Your task to perform on an android device: What's US dollar exchange rate against the Chinese Yuan? Image 0: 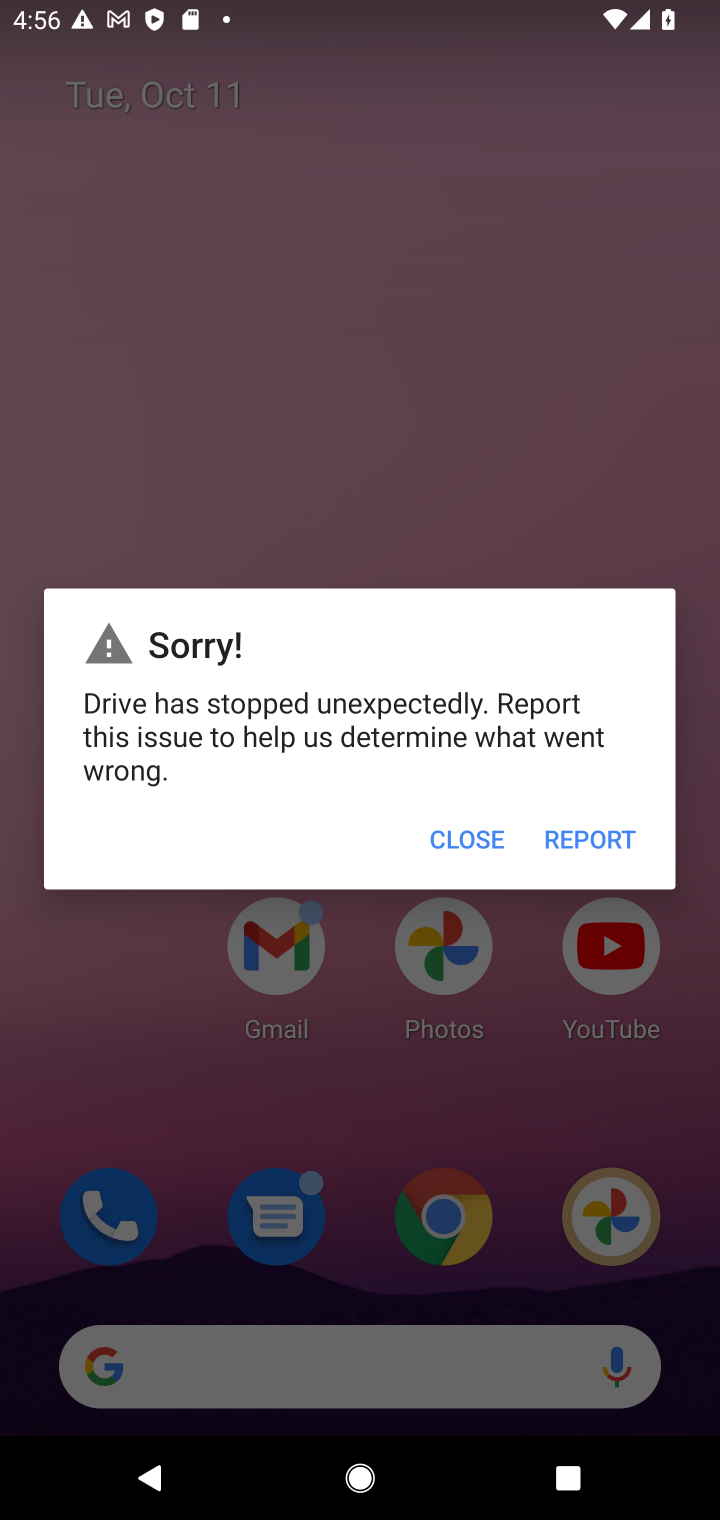
Step 0: press home button
Your task to perform on an android device: What's US dollar exchange rate against the Chinese Yuan? Image 1: 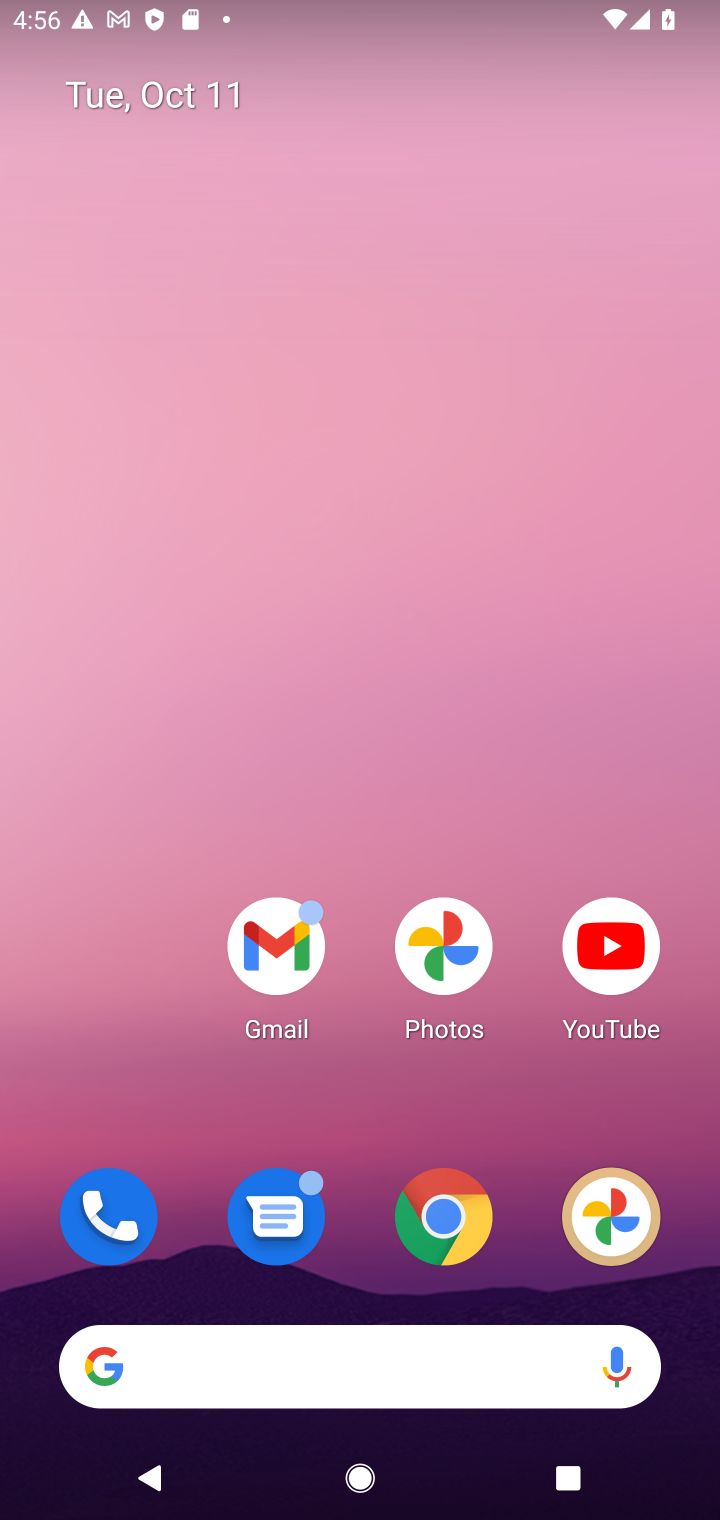
Step 1: click (441, 1222)
Your task to perform on an android device: What's US dollar exchange rate against the Chinese Yuan? Image 2: 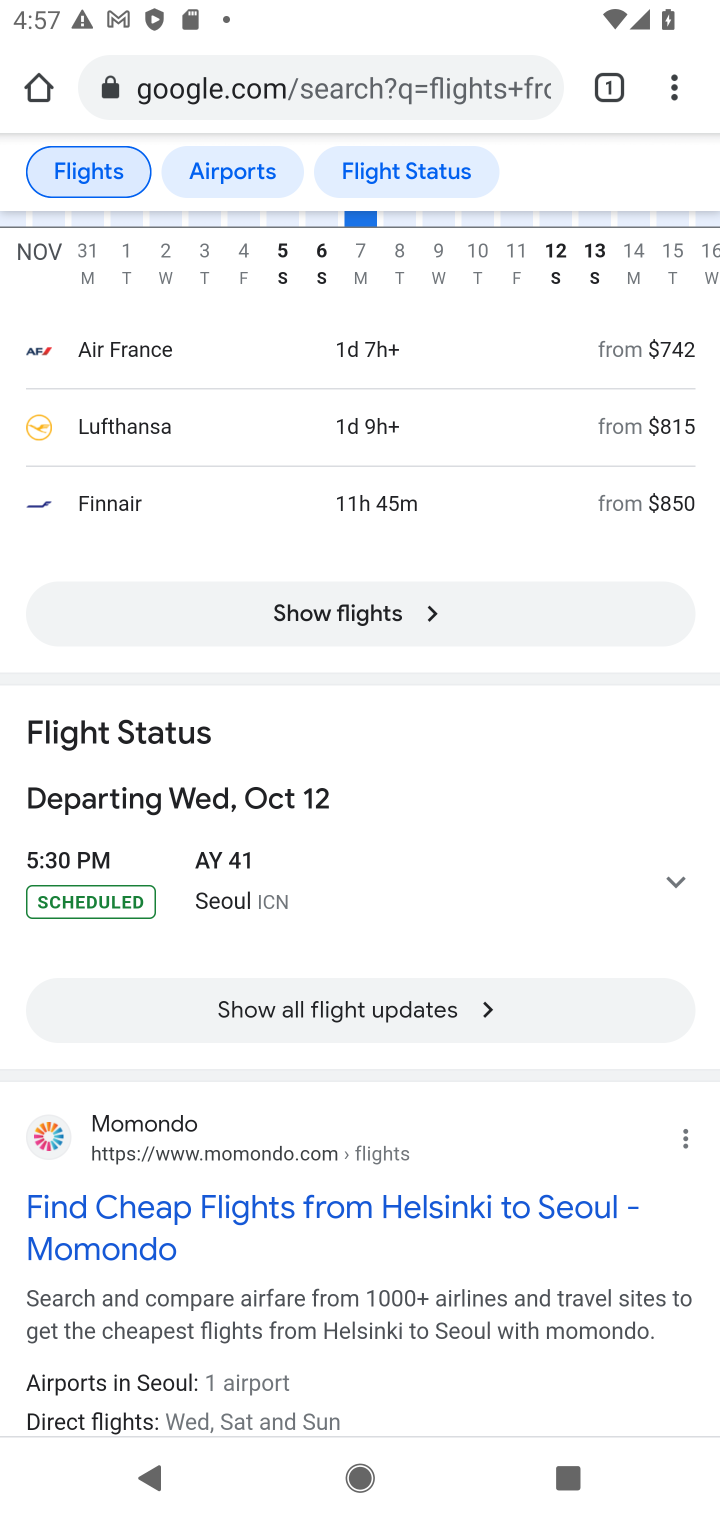
Step 2: click (334, 81)
Your task to perform on an android device: What's US dollar exchange rate against the Chinese Yuan? Image 3: 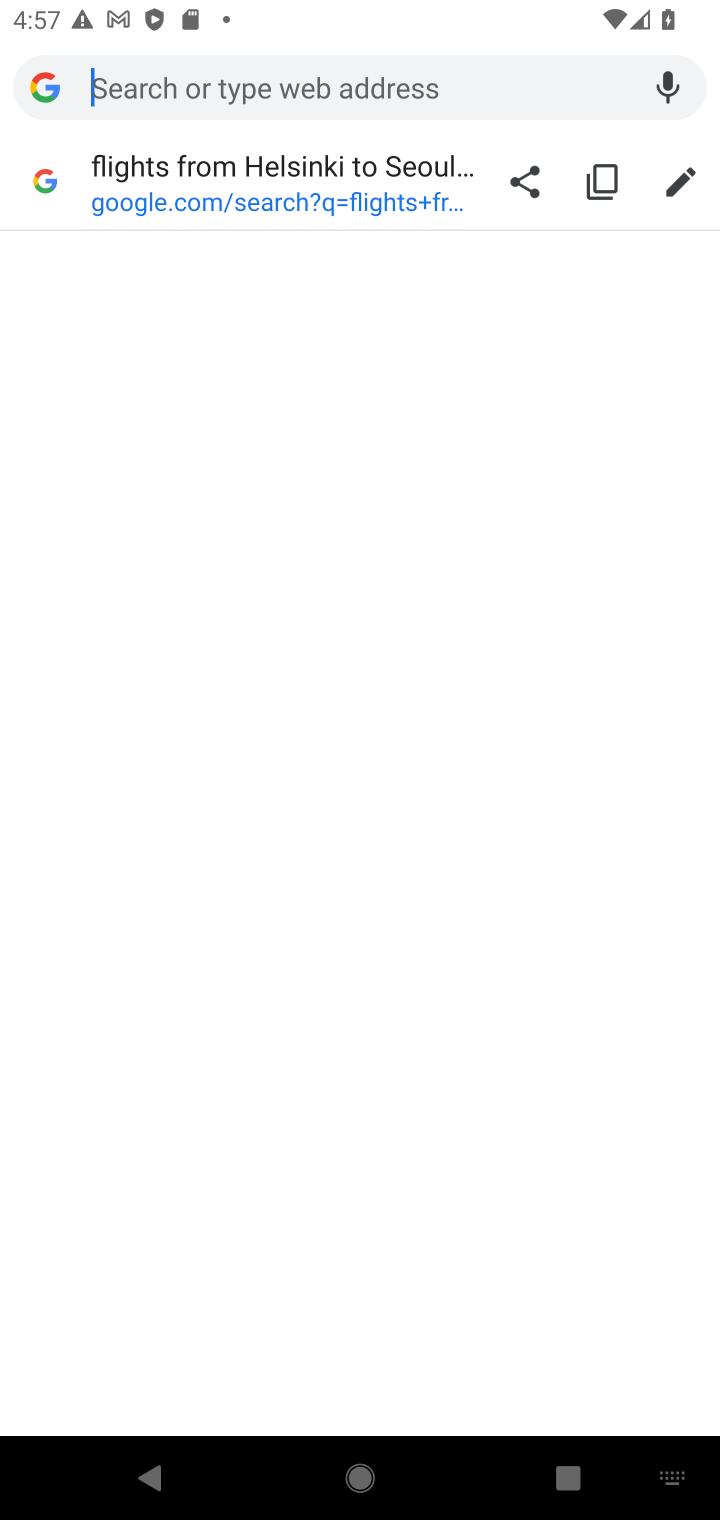
Step 3: type "What's US dollar exchange rate against the Chinese Yuan?"
Your task to perform on an android device: What's US dollar exchange rate against the Chinese Yuan? Image 4: 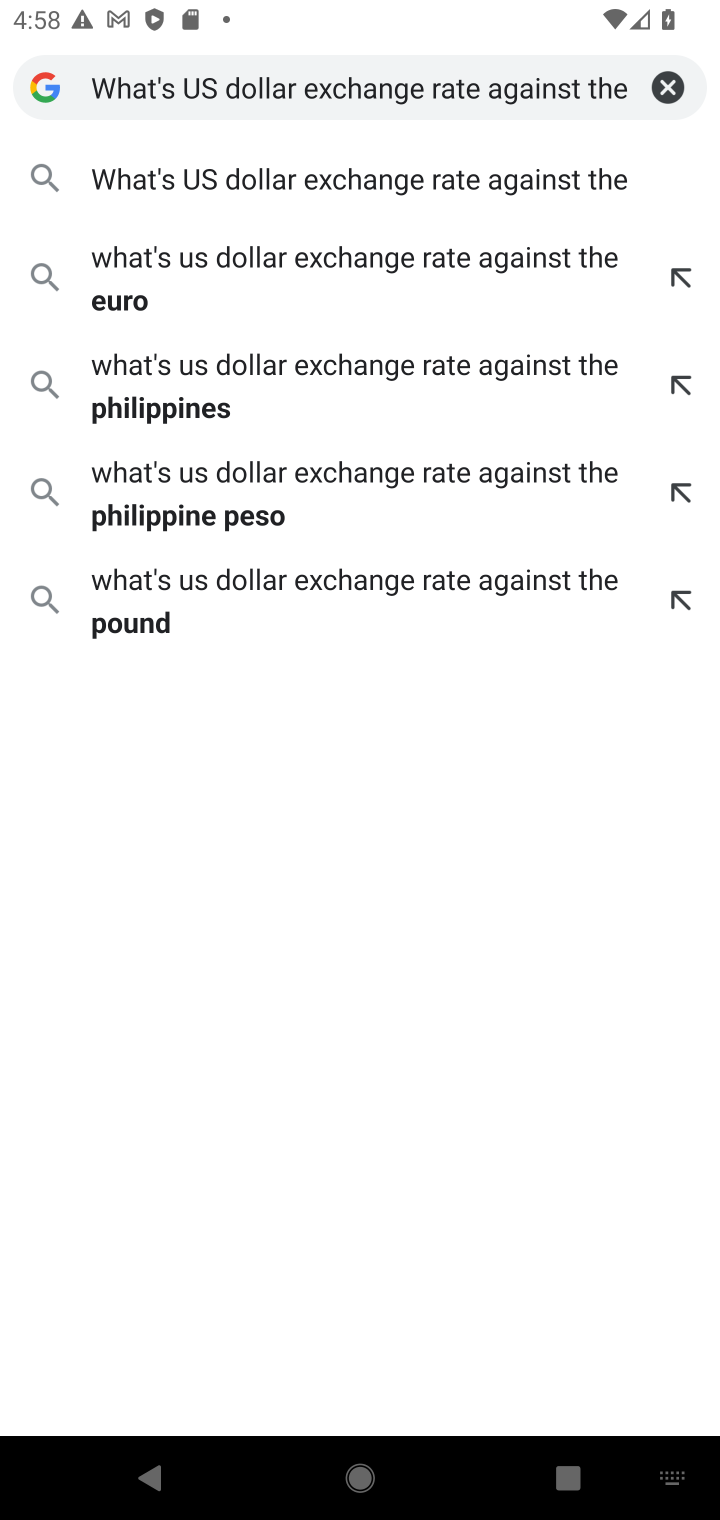
Step 4: click (226, 182)
Your task to perform on an android device: What's US dollar exchange rate against the Chinese Yuan? Image 5: 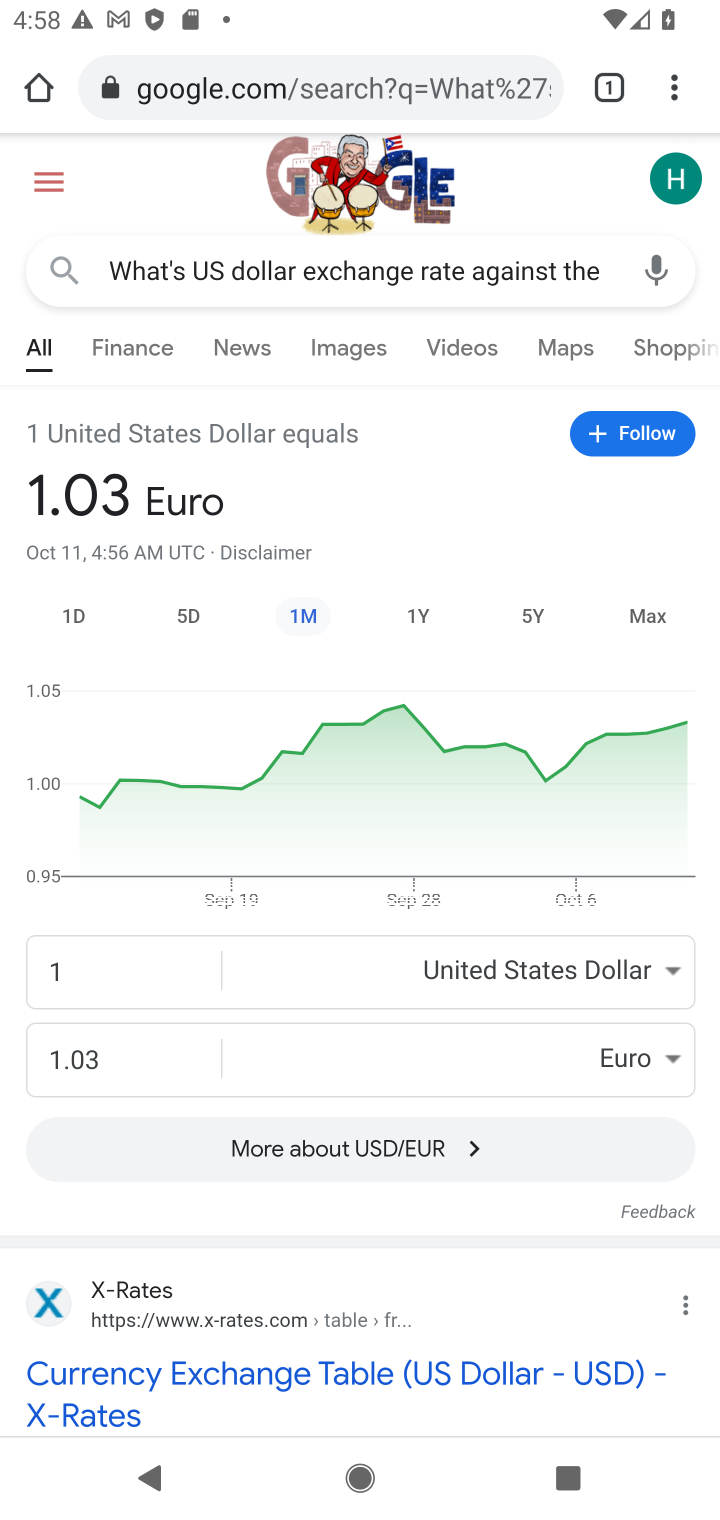
Step 5: click (615, 1054)
Your task to perform on an android device: What's US dollar exchange rate against the Chinese Yuan? Image 6: 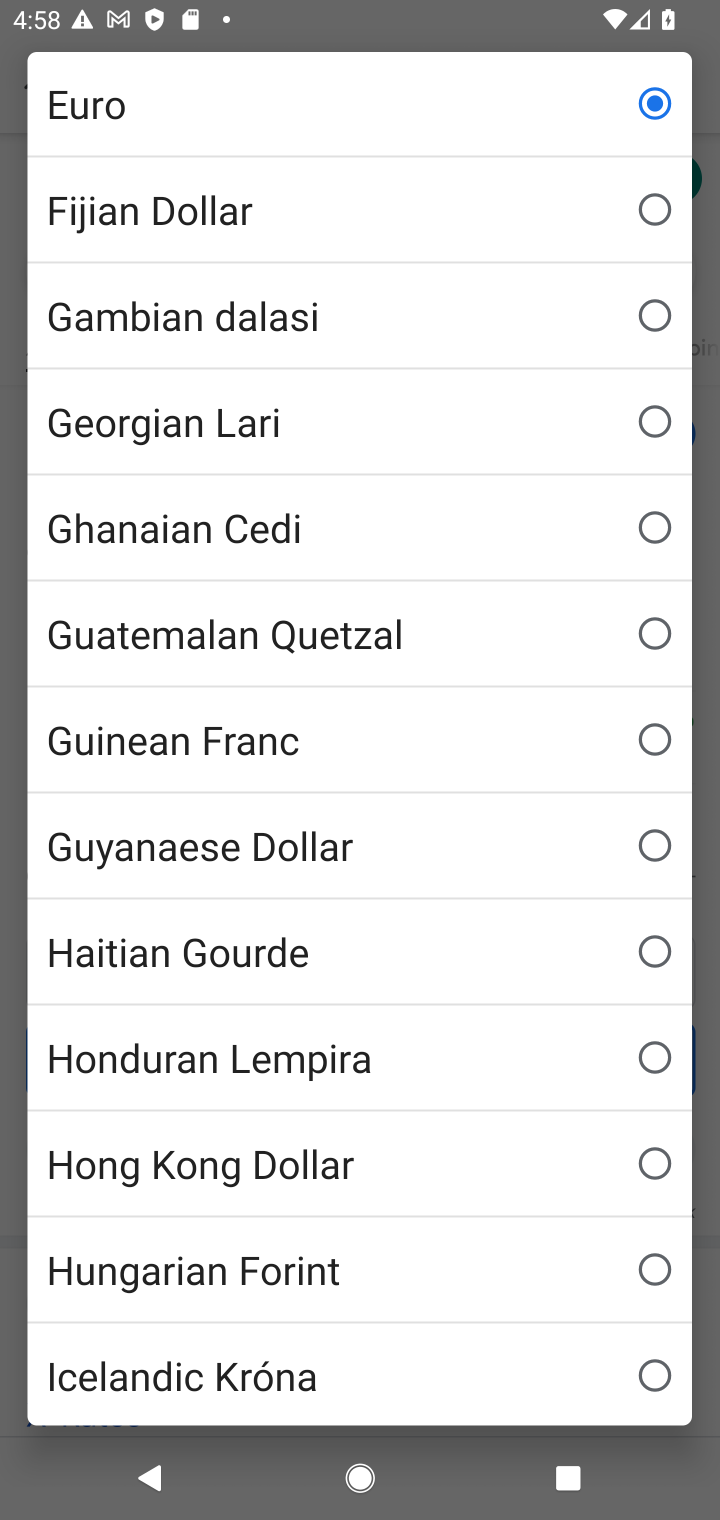
Step 6: drag from (381, 470) to (360, 799)
Your task to perform on an android device: What's US dollar exchange rate against the Chinese Yuan? Image 7: 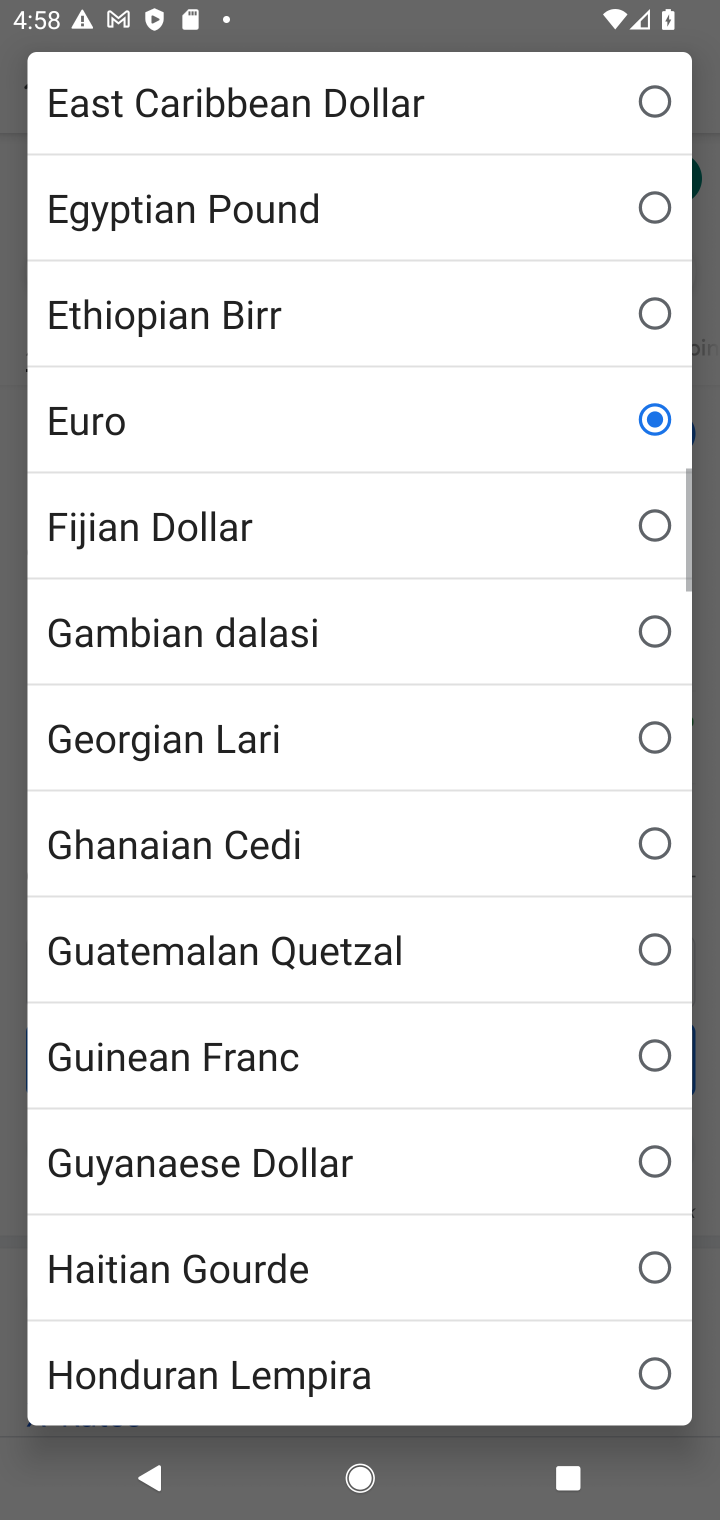
Step 7: drag from (284, 221) to (319, 652)
Your task to perform on an android device: What's US dollar exchange rate against the Chinese Yuan? Image 8: 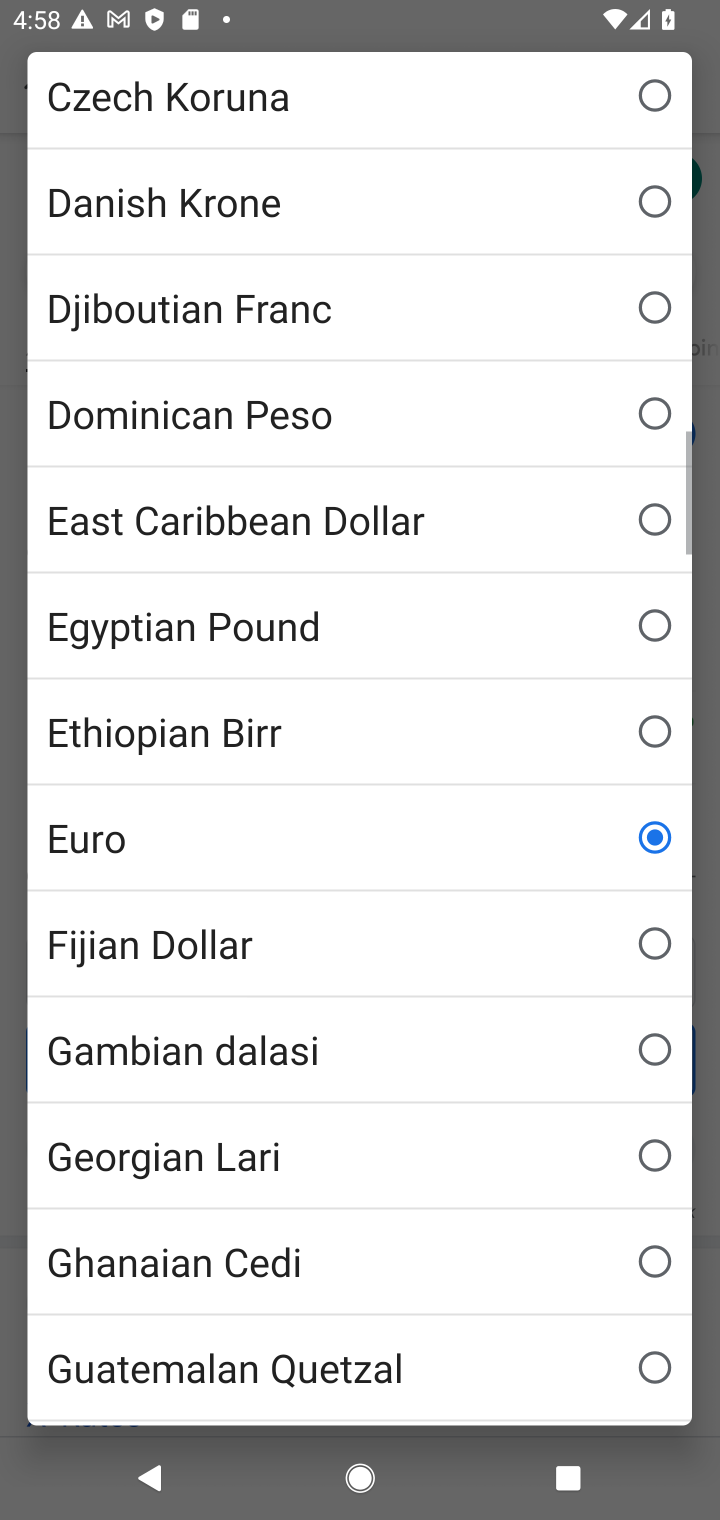
Step 8: drag from (225, 336) to (251, 597)
Your task to perform on an android device: What's US dollar exchange rate against the Chinese Yuan? Image 9: 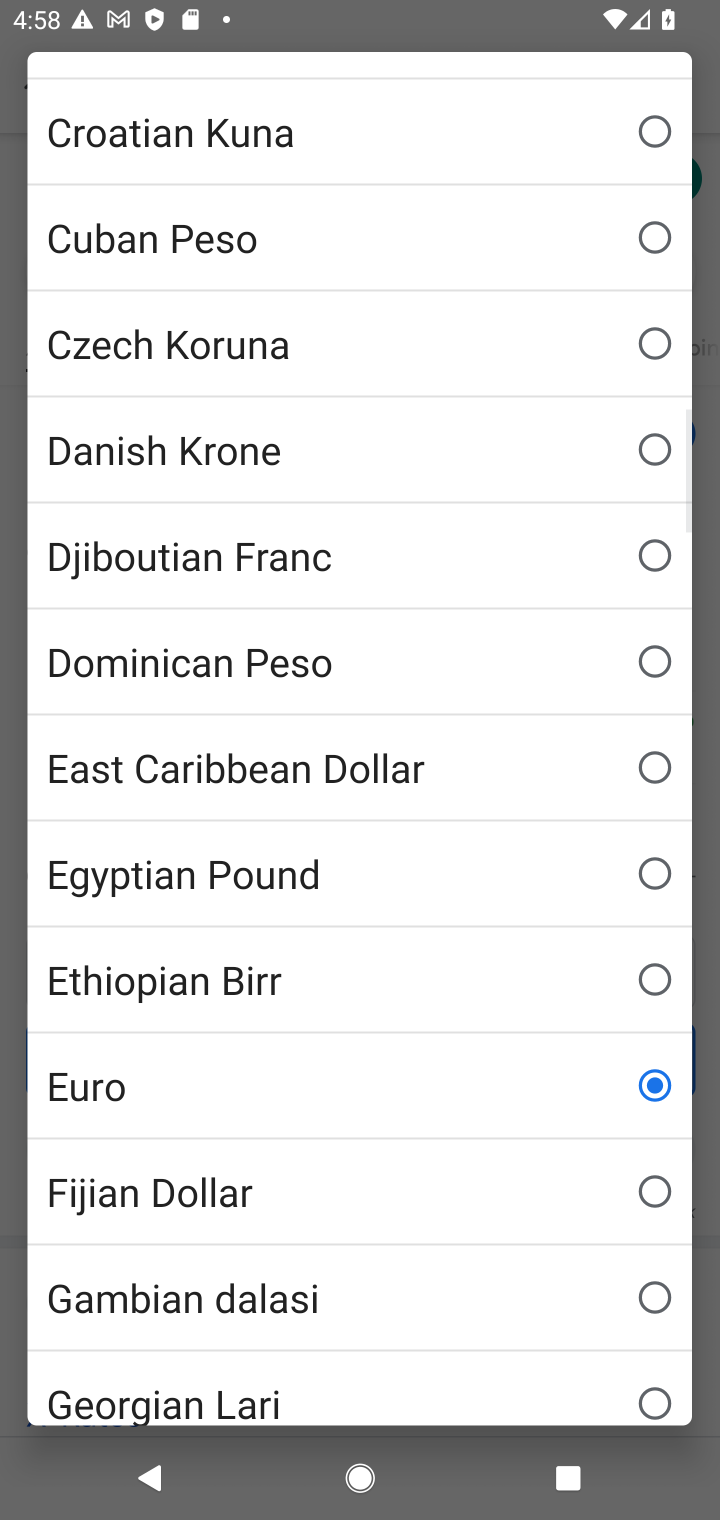
Step 9: drag from (270, 186) to (349, 572)
Your task to perform on an android device: What's US dollar exchange rate against the Chinese Yuan? Image 10: 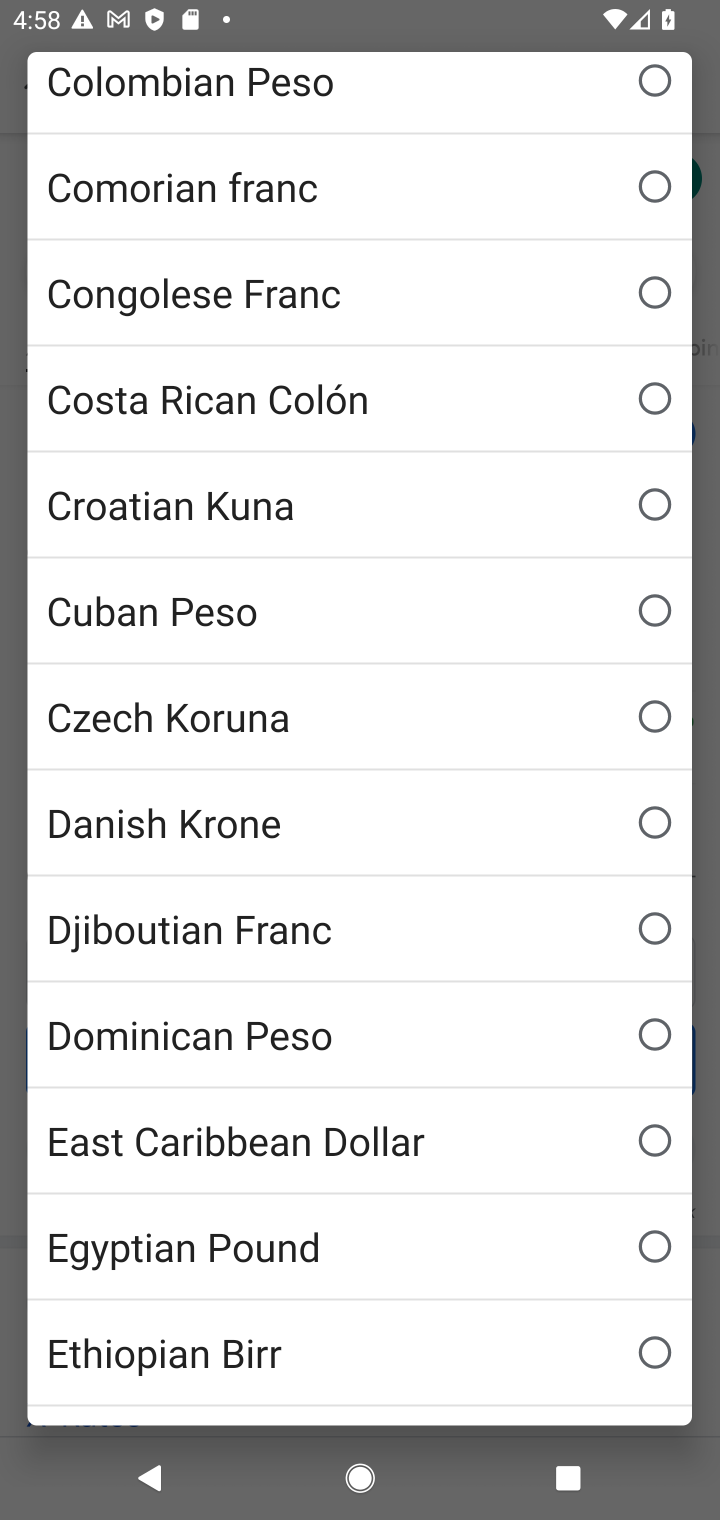
Step 10: drag from (247, 152) to (249, 502)
Your task to perform on an android device: What's US dollar exchange rate against the Chinese Yuan? Image 11: 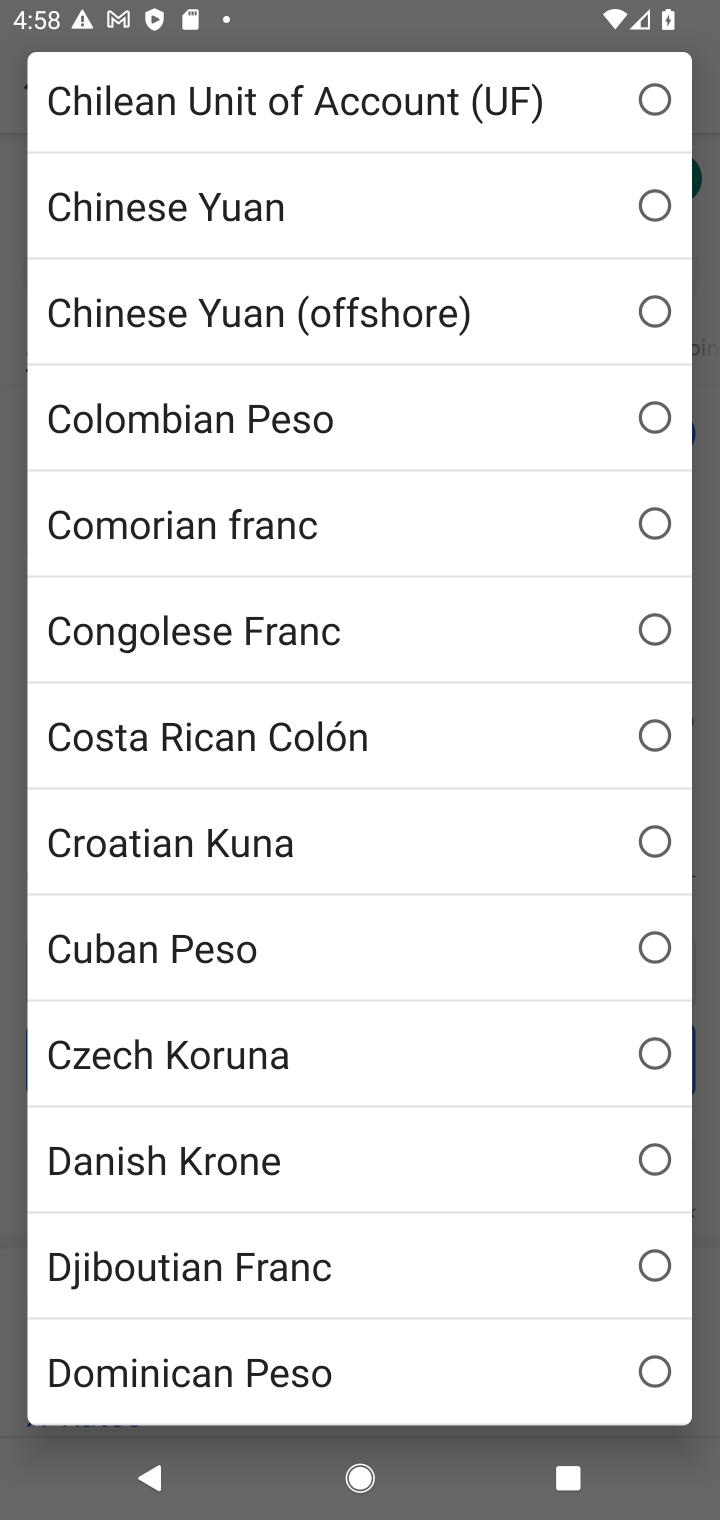
Step 11: click (656, 204)
Your task to perform on an android device: What's US dollar exchange rate against the Chinese Yuan? Image 12: 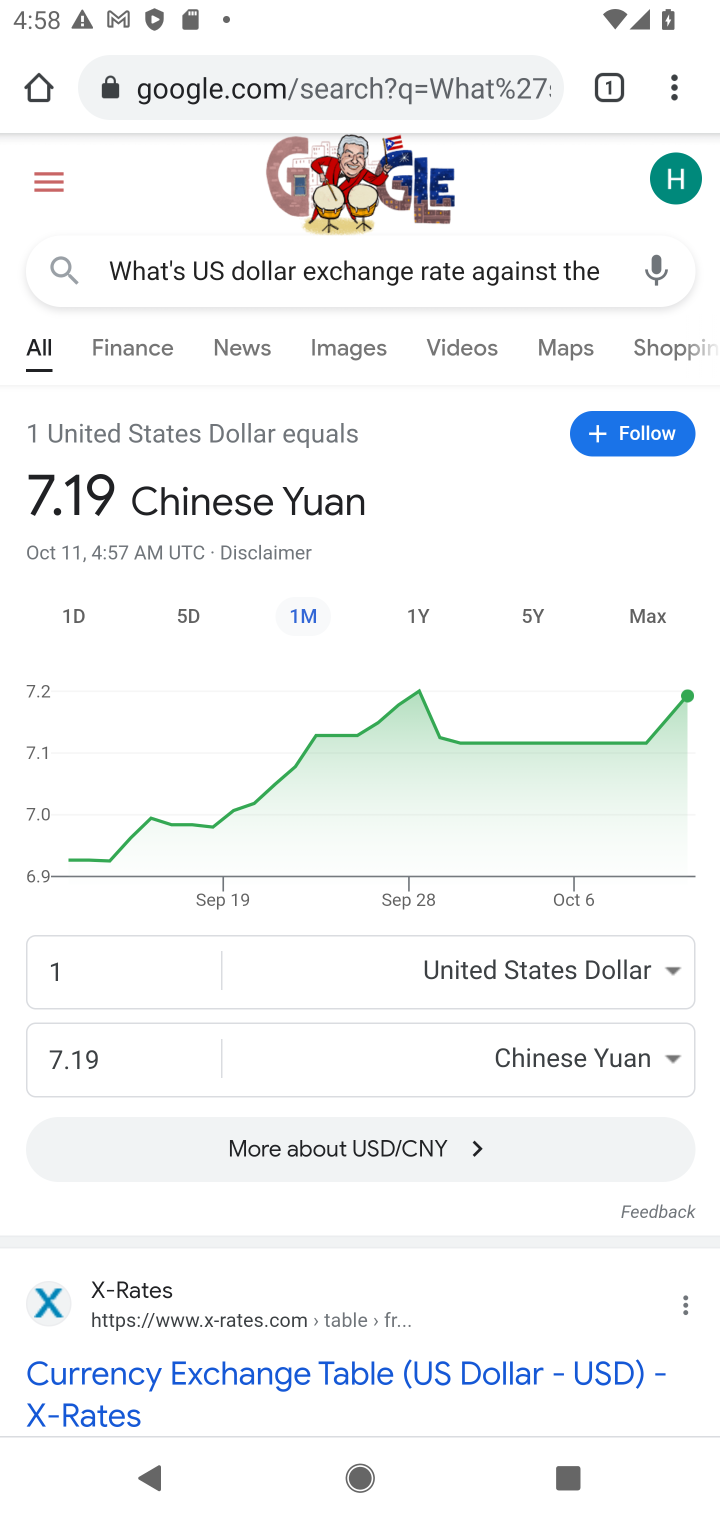
Step 12: task complete